Your task to perform on an android device: open app "Pluto TV - Live TV and Movies" (install if not already installed) Image 0: 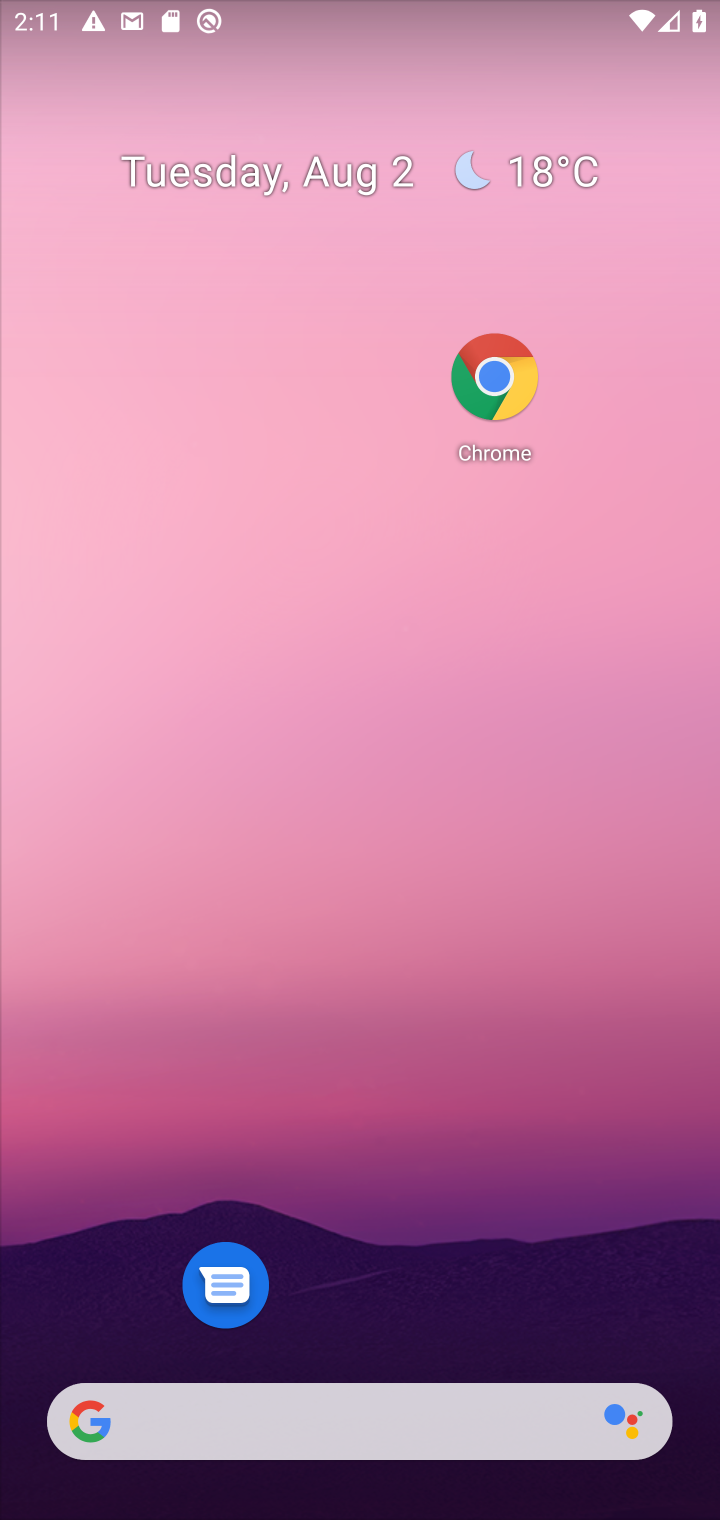
Step 0: press home button
Your task to perform on an android device: open app "Pluto TV - Live TV and Movies" (install if not already installed) Image 1: 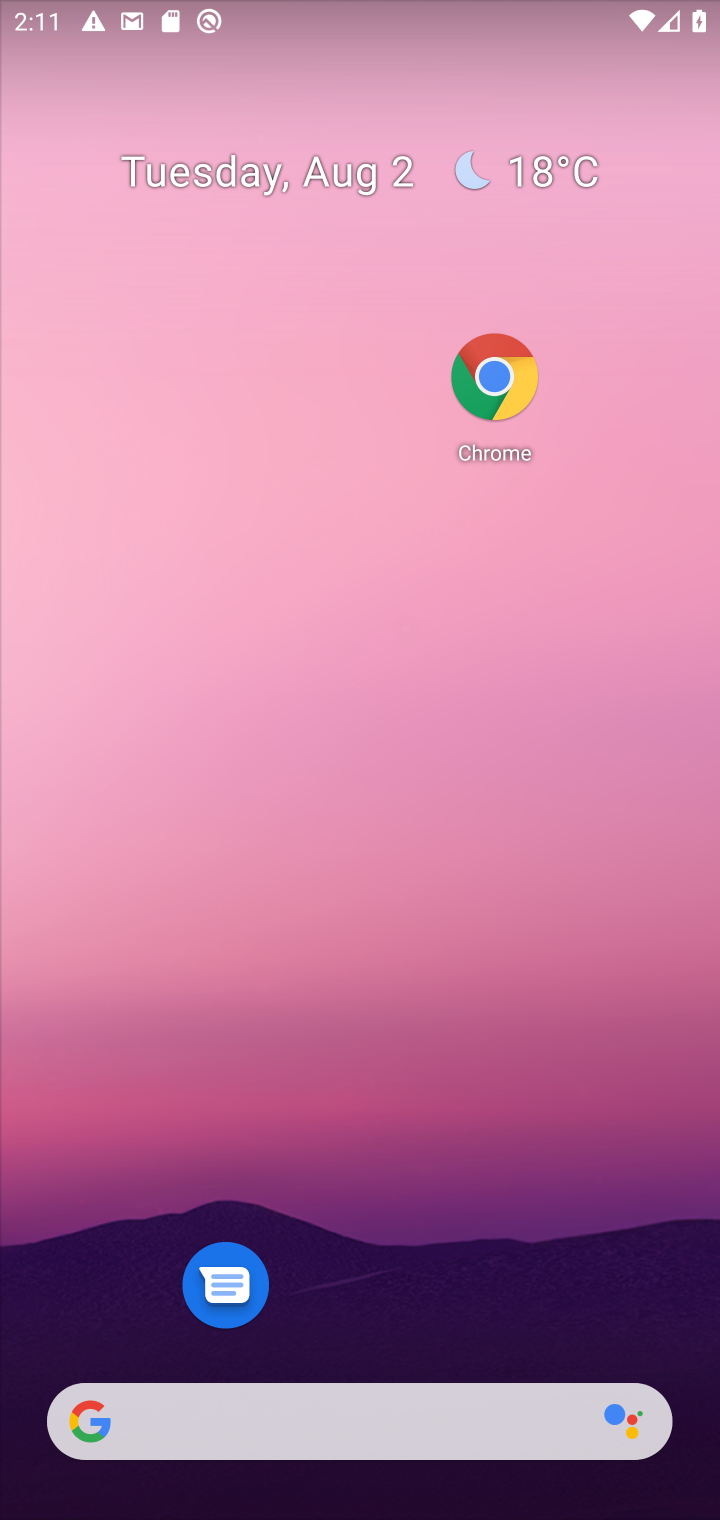
Step 1: drag from (402, 1293) to (404, 439)
Your task to perform on an android device: open app "Pluto TV - Live TV and Movies" (install if not already installed) Image 2: 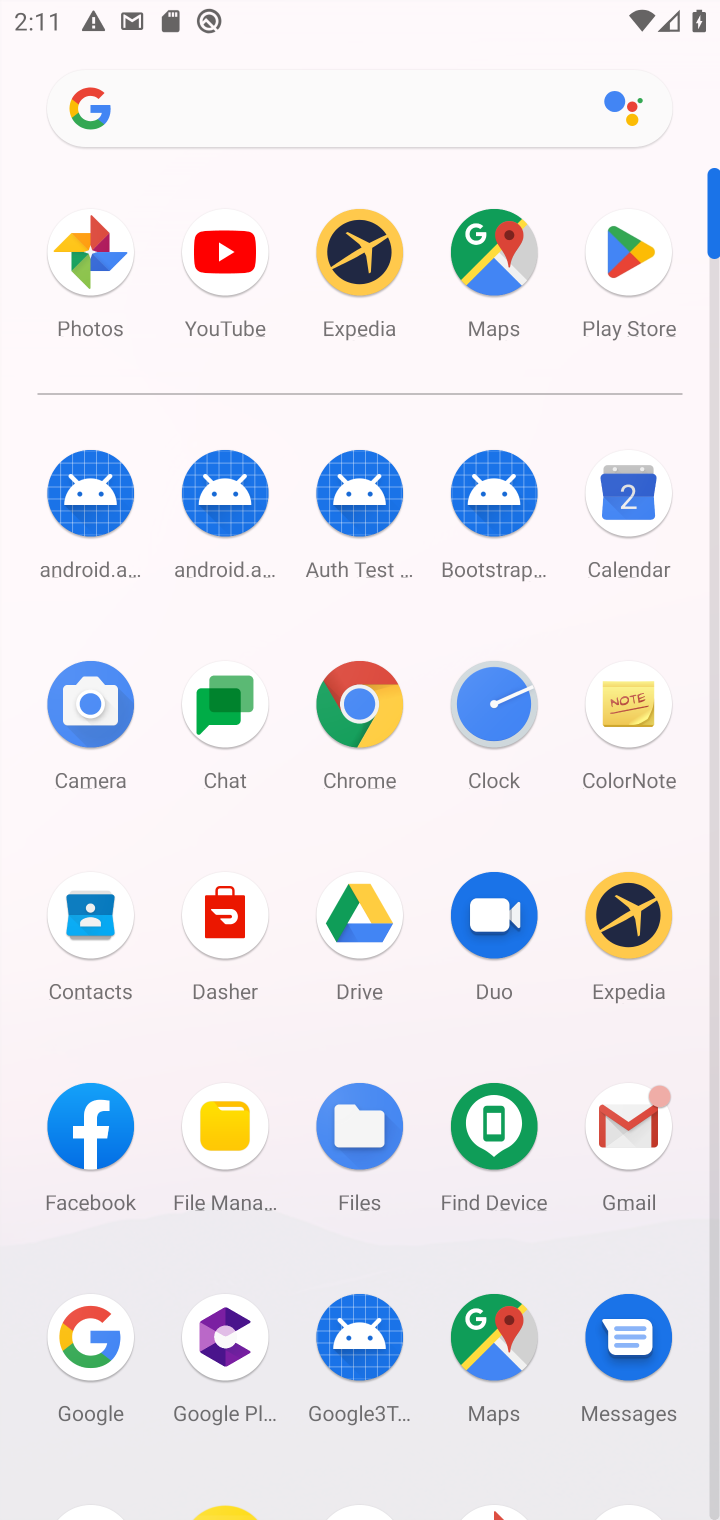
Step 2: click (671, 224)
Your task to perform on an android device: open app "Pluto TV - Live TV and Movies" (install if not already installed) Image 3: 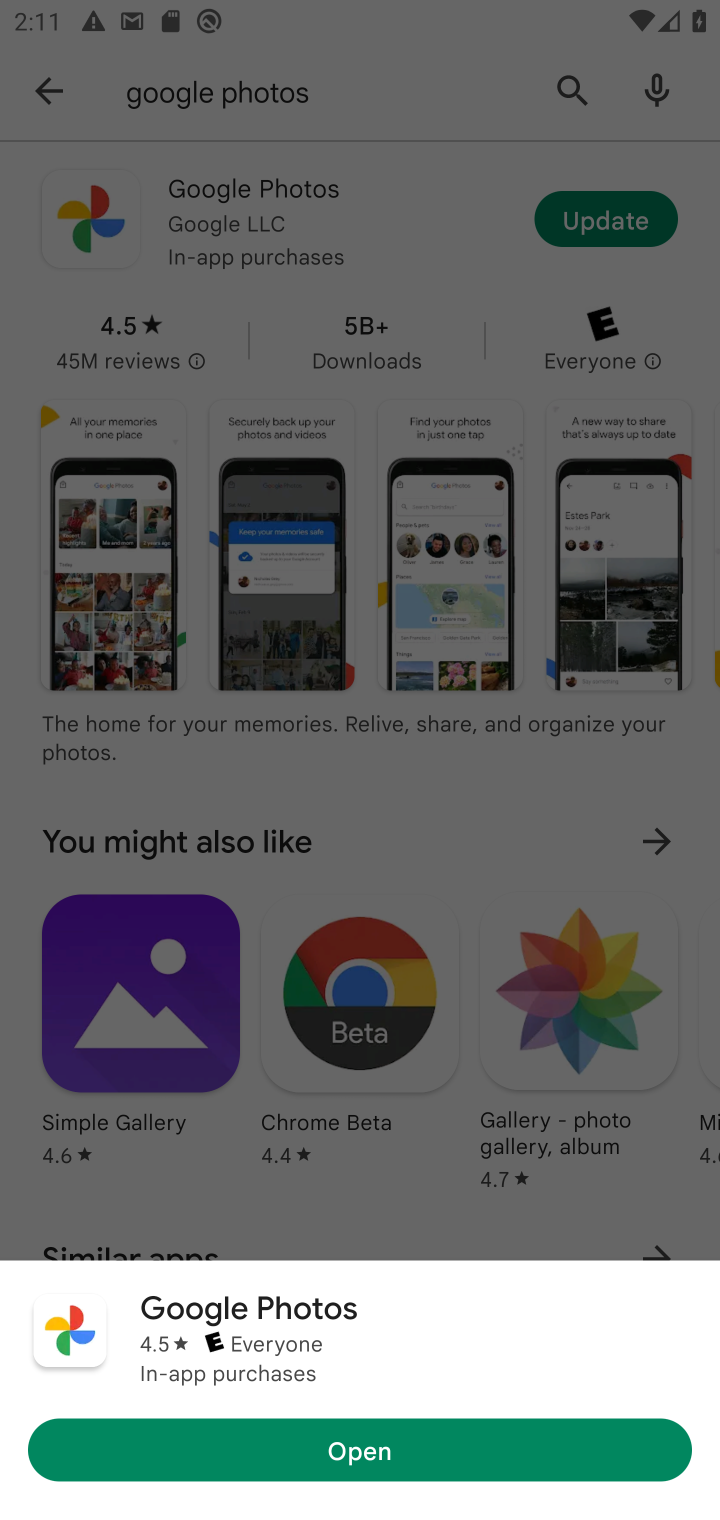
Step 3: click (527, 95)
Your task to perform on an android device: open app "Pluto TV - Live TV and Movies" (install if not already installed) Image 4: 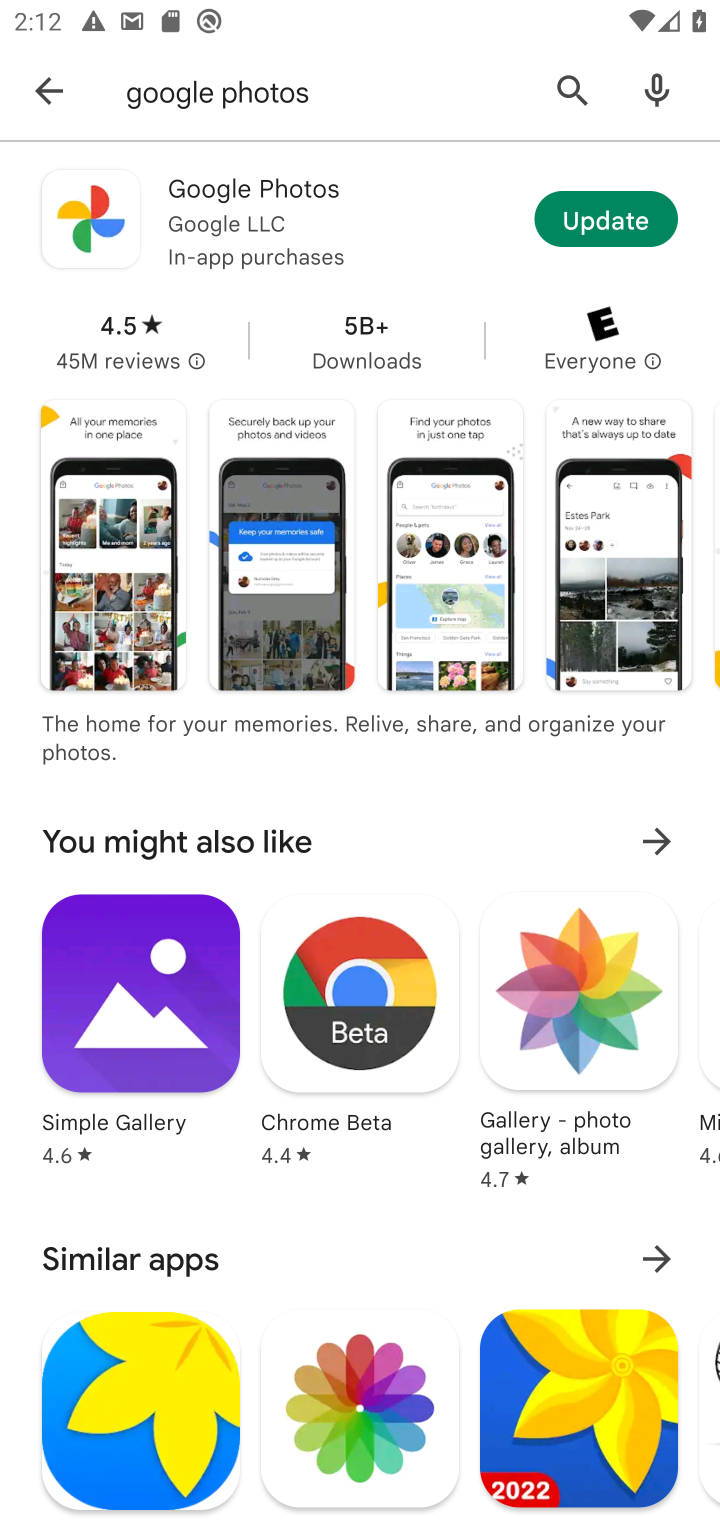
Step 4: click (577, 87)
Your task to perform on an android device: open app "Pluto TV - Live TV and Movies" (install if not already installed) Image 5: 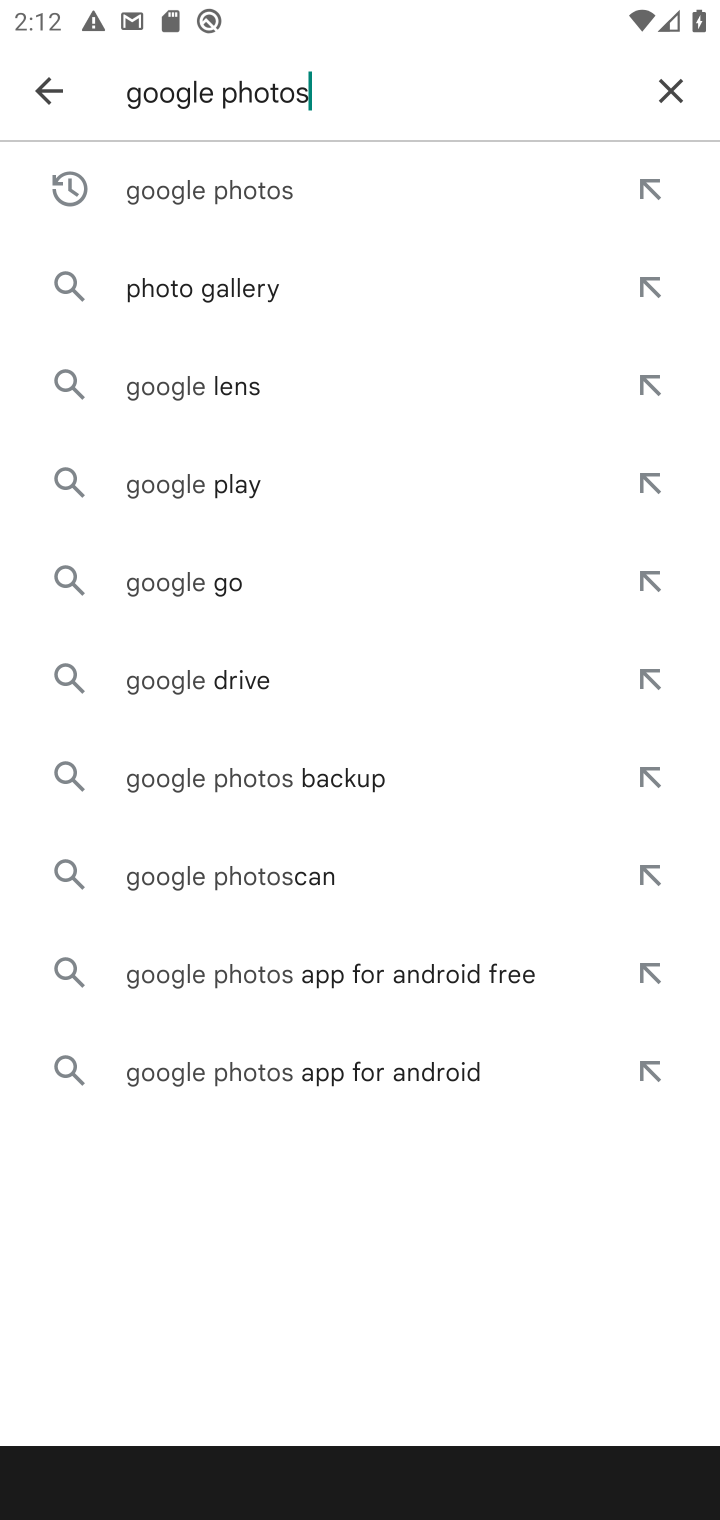
Step 5: click (660, 91)
Your task to perform on an android device: open app "Pluto TV - Live TV and Movies" (install if not already installed) Image 6: 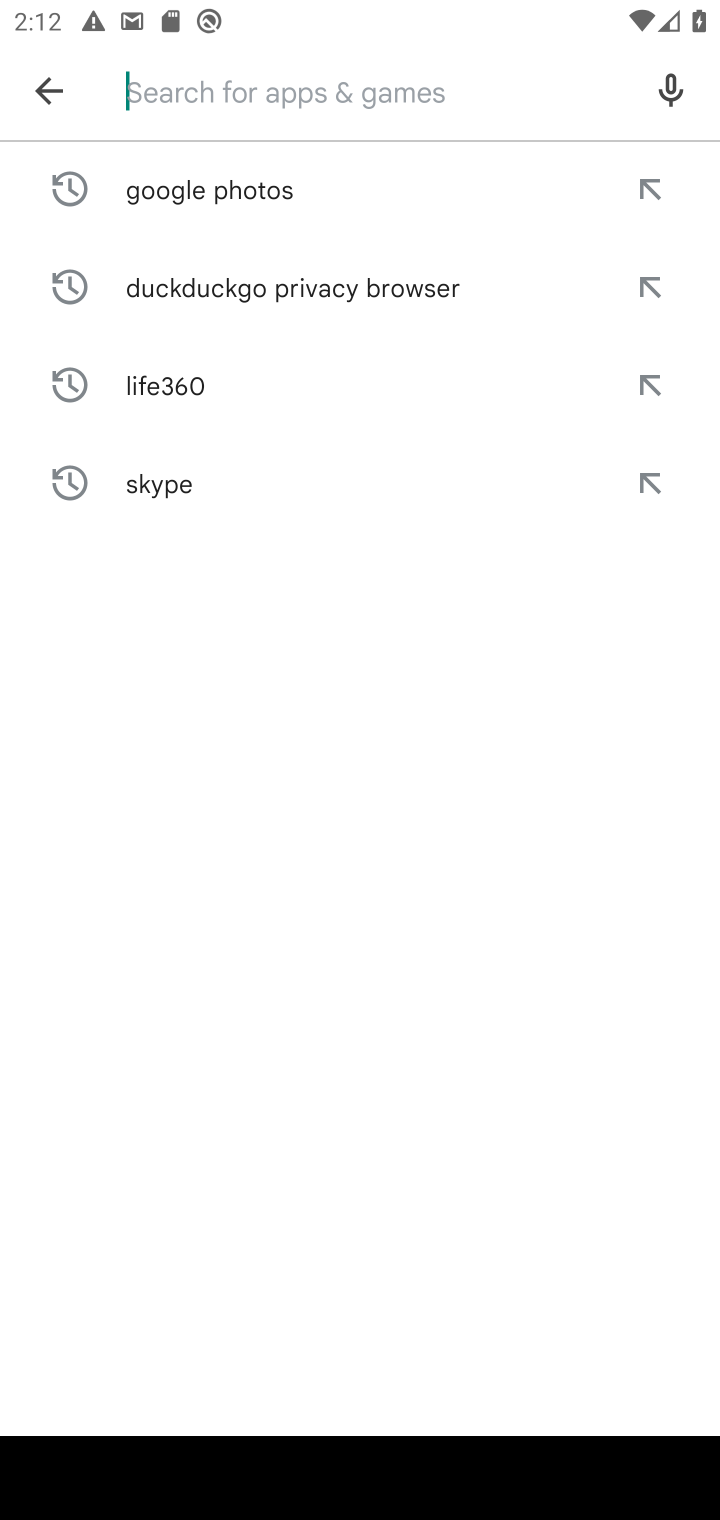
Step 6: type "PlutoTV and movies"
Your task to perform on an android device: open app "Pluto TV - Live TV and Movies" (install if not already installed) Image 7: 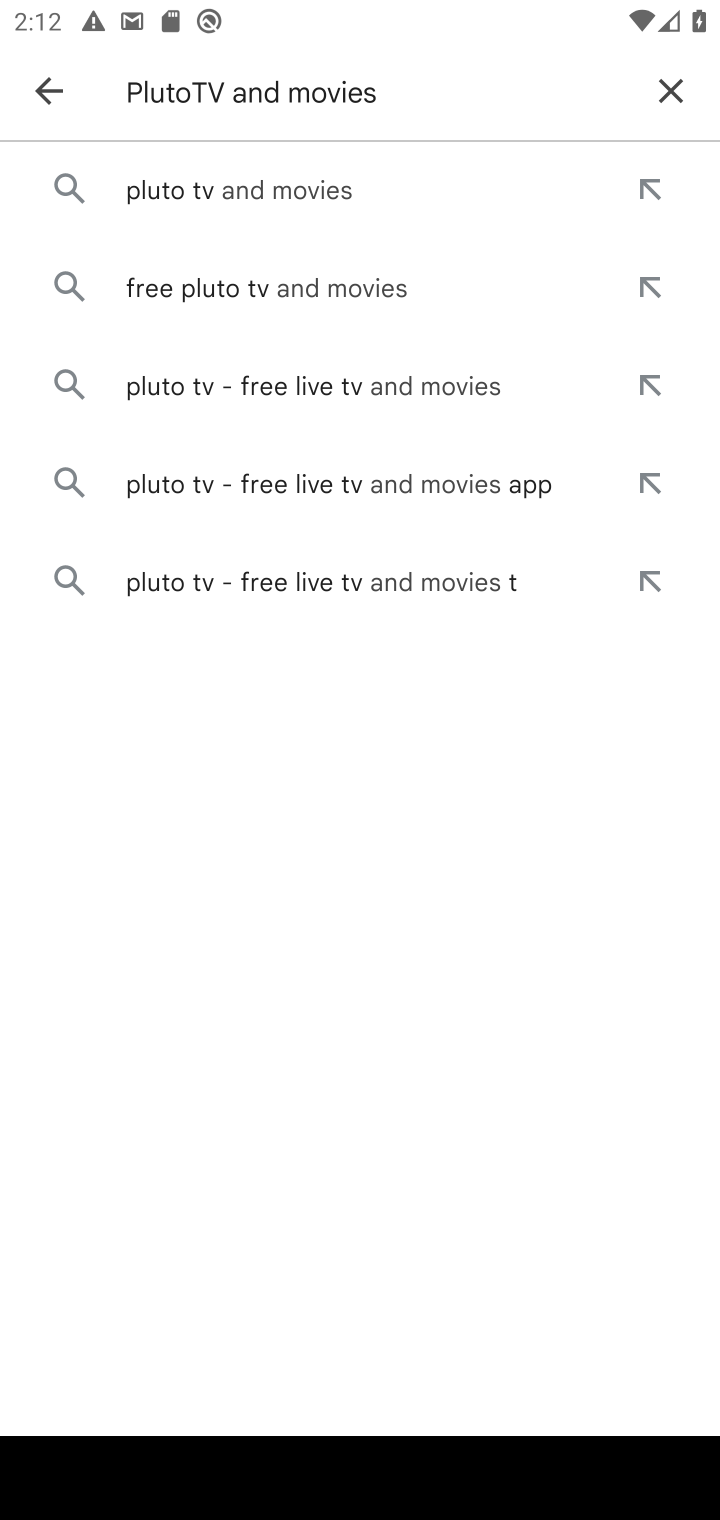
Step 7: click (227, 188)
Your task to perform on an android device: open app "Pluto TV - Live TV and Movies" (install if not already installed) Image 8: 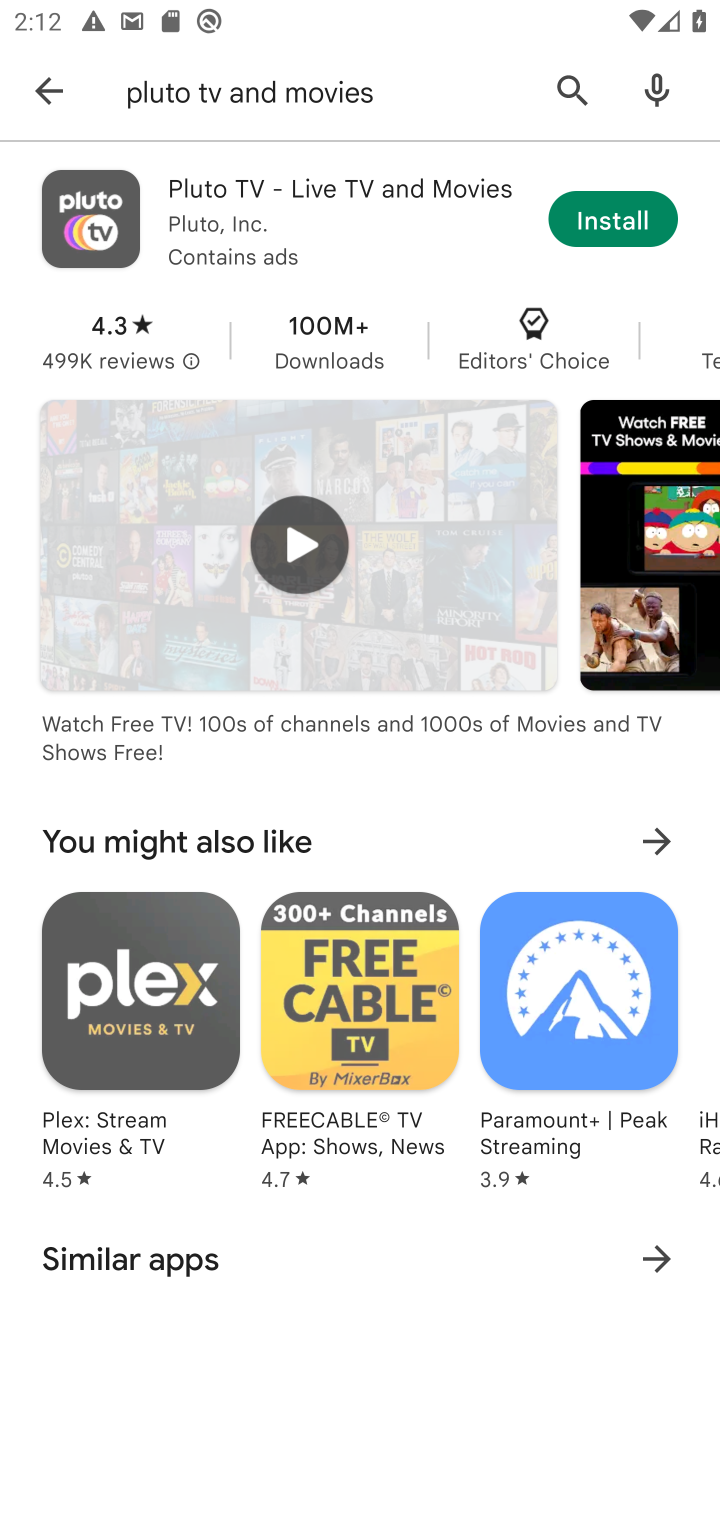
Step 8: click (608, 231)
Your task to perform on an android device: open app "Pluto TV - Live TV and Movies" (install if not already installed) Image 9: 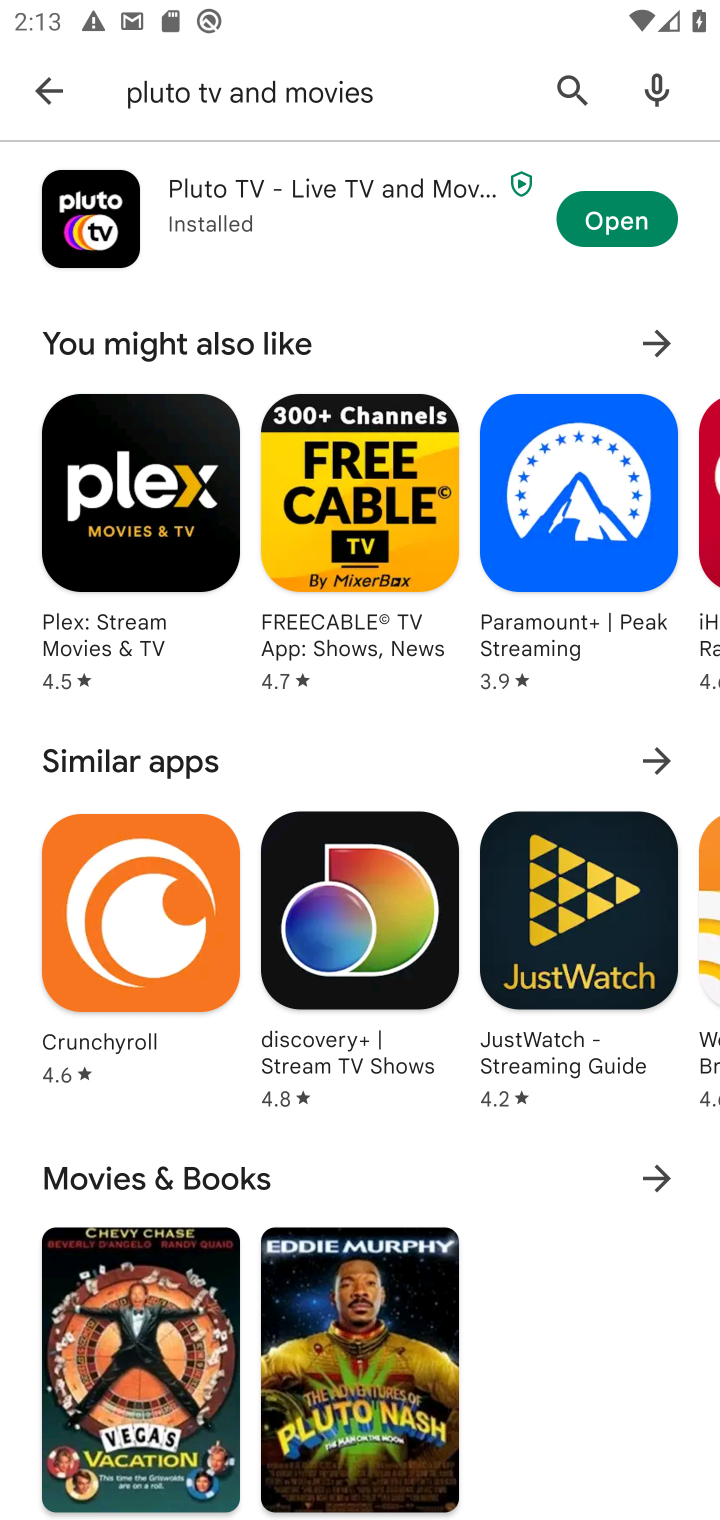
Step 9: click (587, 242)
Your task to perform on an android device: open app "Pluto TV - Live TV and Movies" (install if not already installed) Image 10: 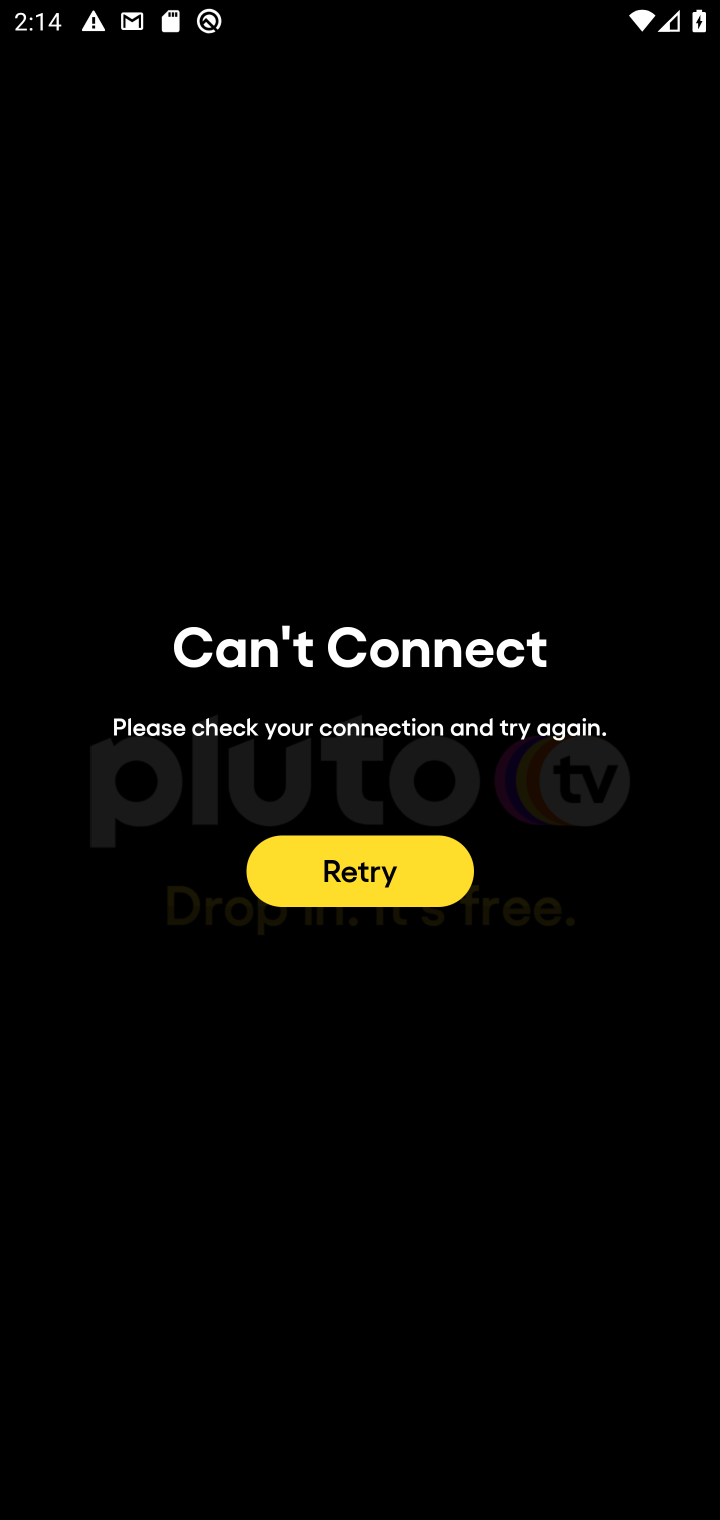
Step 10: task complete